Your task to perform on an android device: turn off sleep mode Image 0: 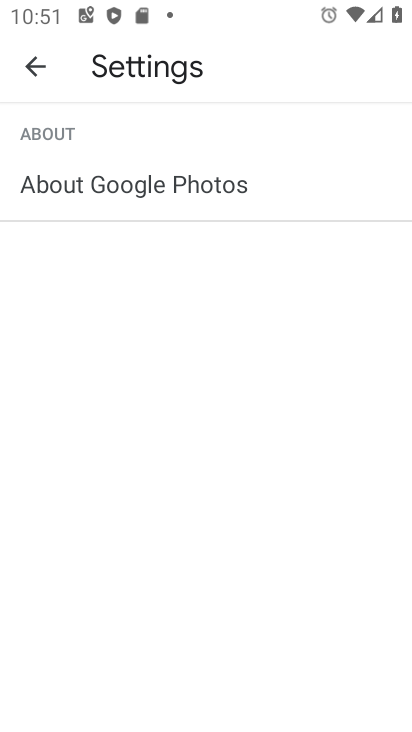
Step 0: press home button
Your task to perform on an android device: turn off sleep mode Image 1: 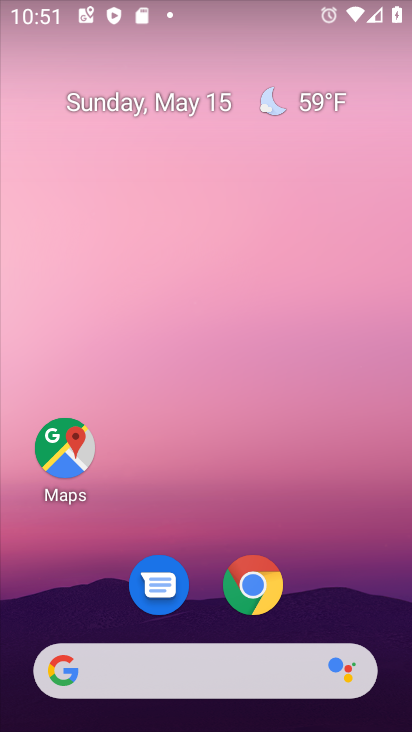
Step 1: drag from (228, 503) to (236, 38)
Your task to perform on an android device: turn off sleep mode Image 2: 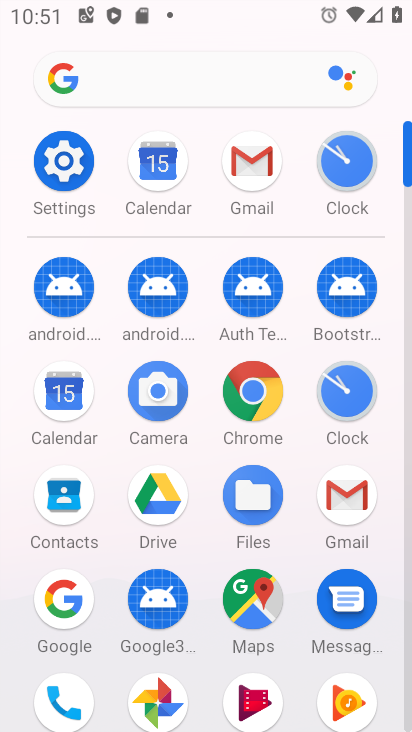
Step 2: click (66, 169)
Your task to perform on an android device: turn off sleep mode Image 3: 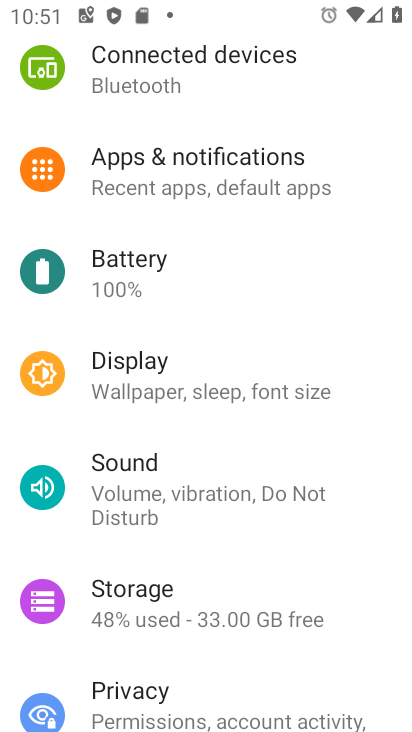
Step 3: click (245, 377)
Your task to perform on an android device: turn off sleep mode Image 4: 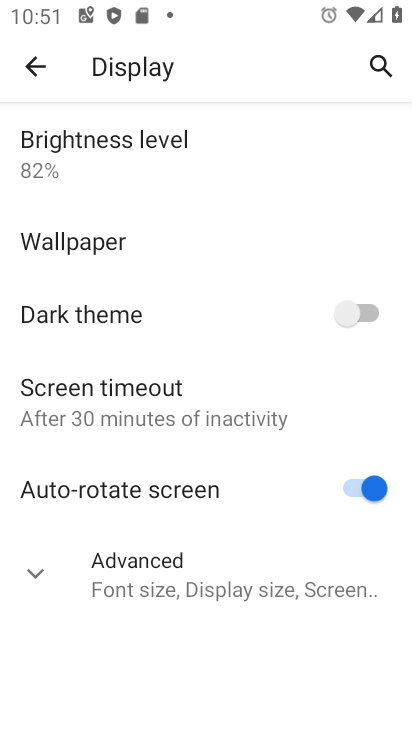
Step 4: click (42, 568)
Your task to perform on an android device: turn off sleep mode Image 5: 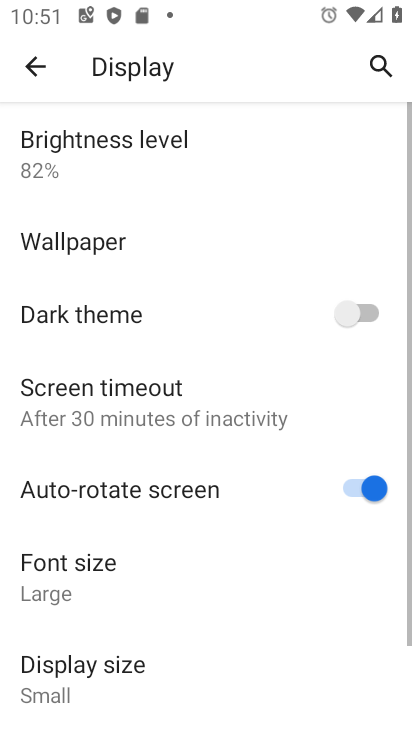
Step 5: task complete